Your task to perform on an android device: open app "Messages" (install if not already installed), go to login, and select forgot password Image 0: 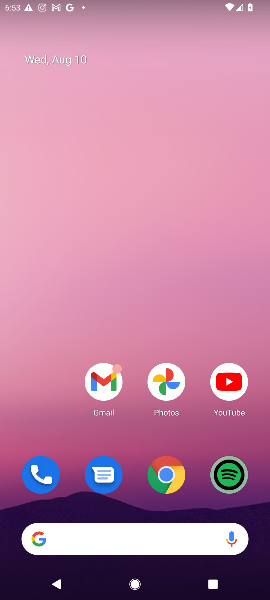
Step 0: drag from (141, 530) to (135, 282)
Your task to perform on an android device: open app "Messages" (install if not already installed), go to login, and select forgot password Image 1: 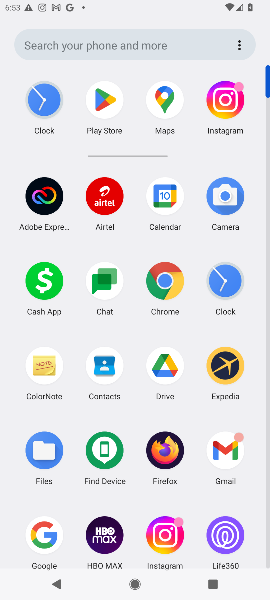
Step 1: click (110, 101)
Your task to perform on an android device: open app "Messages" (install if not already installed), go to login, and select forgot password Image 2: 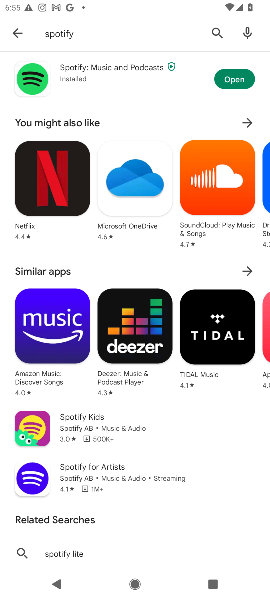
Step 2: task complete